Your task to perform on an android device: toggle wifi Image 0: 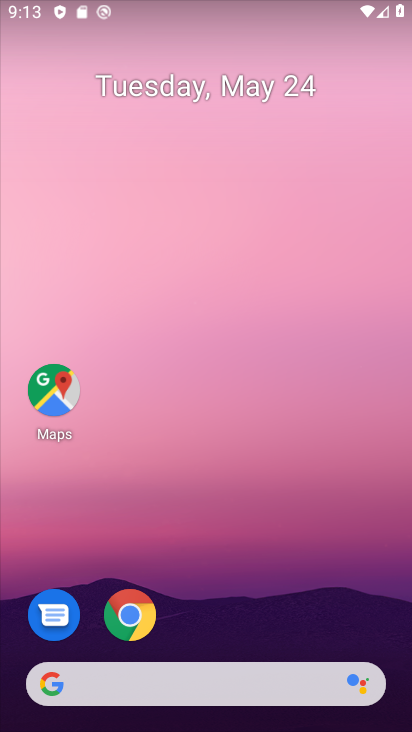
Step 0: drag from (241, 650) to (291, 0)
Your task to perform on an android device: toggle wifi Image 1: 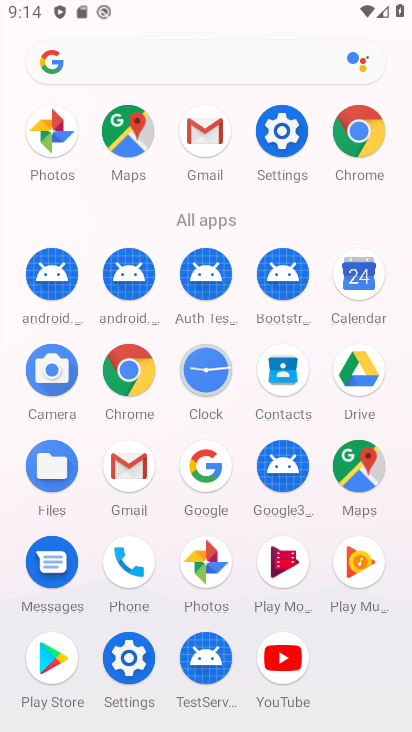
Step 1: click (289, 132)
Your task to perform on an android device: toggle wifi Image 2: 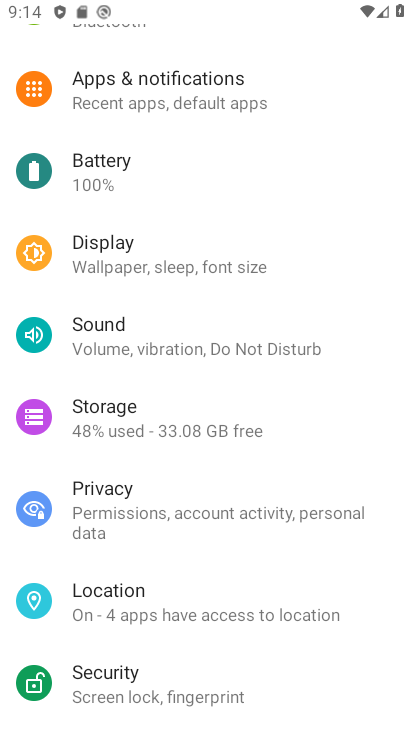
Step 2: drag from (146, 85) to (174, 486)
Your task to perform on an android device: toggle wifi Image 3: 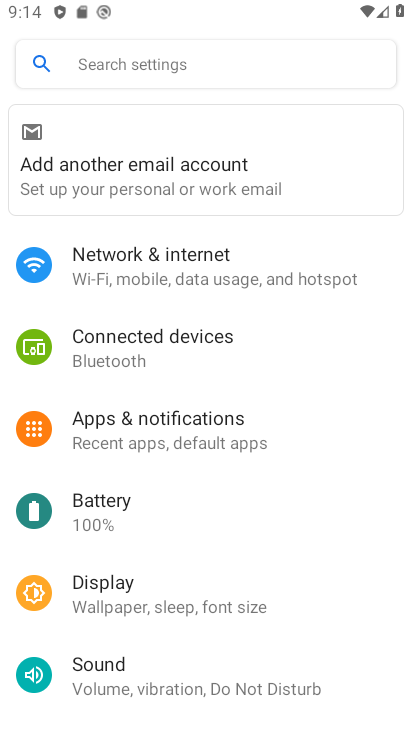
Step 3: click (232, 266)
Your task to perform on an android device: toggle wifi Image 4: 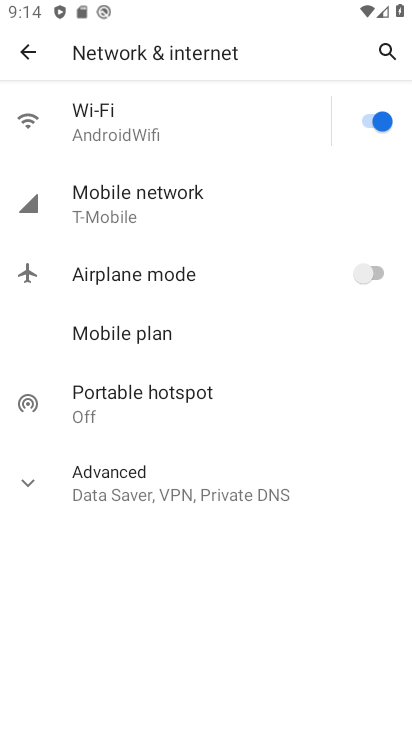
Step 4: click (367, 121)
Your task to perform on an android device: toggle wifi Image 5: 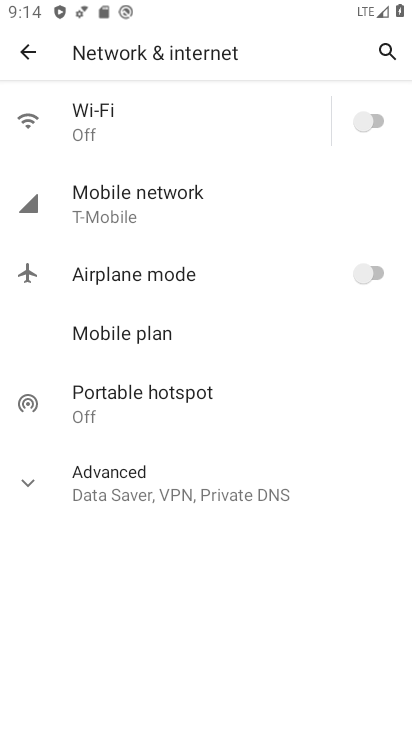
Step 5: task complete